Your task to perform on an android device: turn on improve location accuracy Image 0: 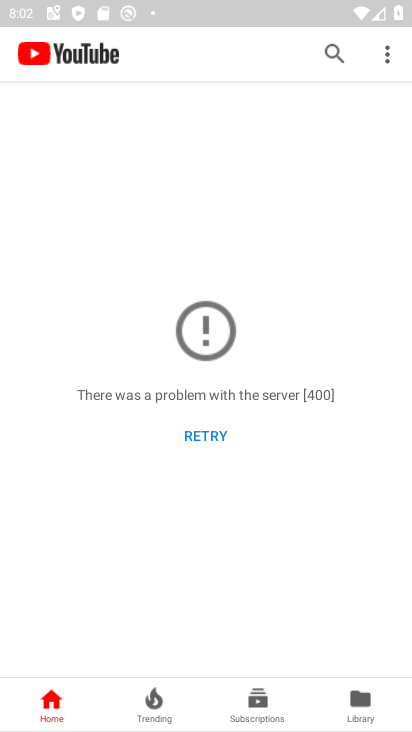
Step 0: press home button
Your task to perform on an android device: turn on improve location accuracy Image 1: 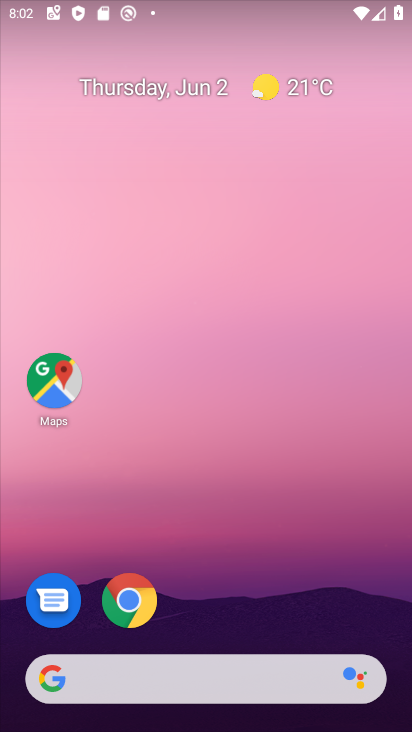
Step 1: drag from (359, 604) to (376, 218)
Your task to perform on an android device: turn on improve location accuracy Image 2: 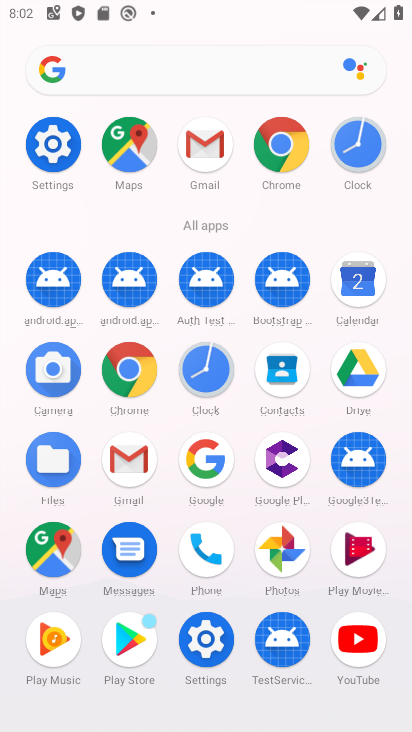
Step 2: click (209, 640)
Your task to perform on an android device: turn on improve location accuracy Image 3: 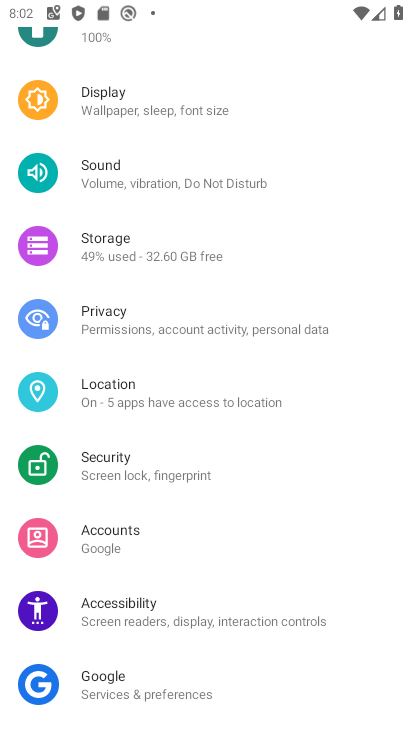
Step 3: drag from (305, 267) to (311, 405)
Your task to perform on an android device: turn on improve location accuracy Image 4: 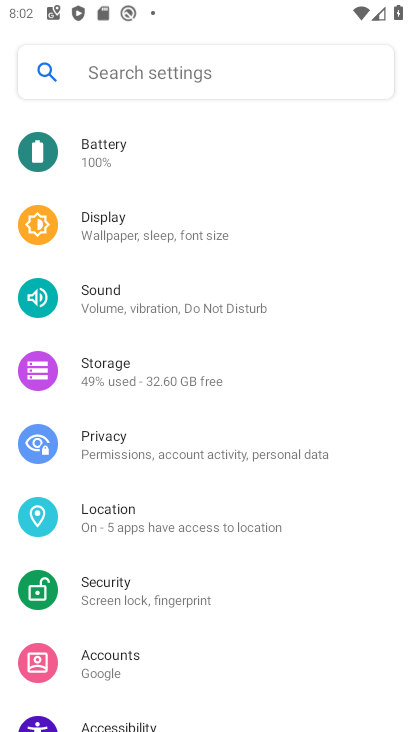
Step 4: drag from (316, 289) to (319, 365)
Your task to perform on an android device: turn on improve location accuracy Image 5: 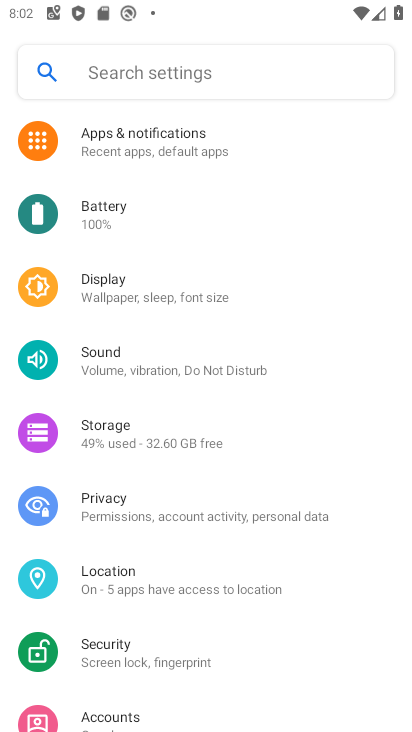
Step 5: drag from (349, 557) to (353, 359)
Your task to perform on an android device: turn on improve location accuracy Image 6: 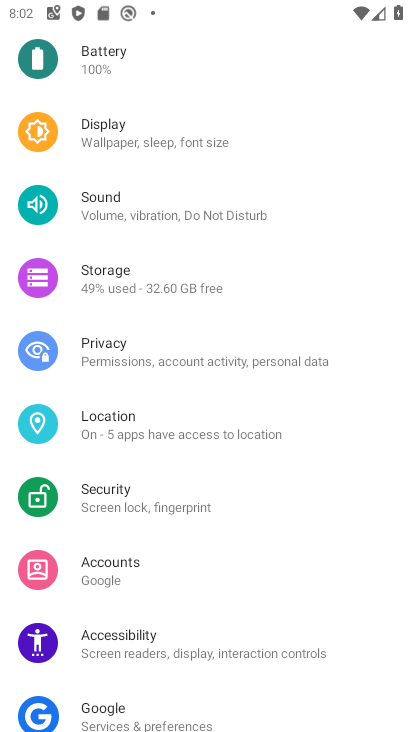
Step 6: click (274, 437)
Your task to perform on an android device: turn on improve location accuracy Image 7: 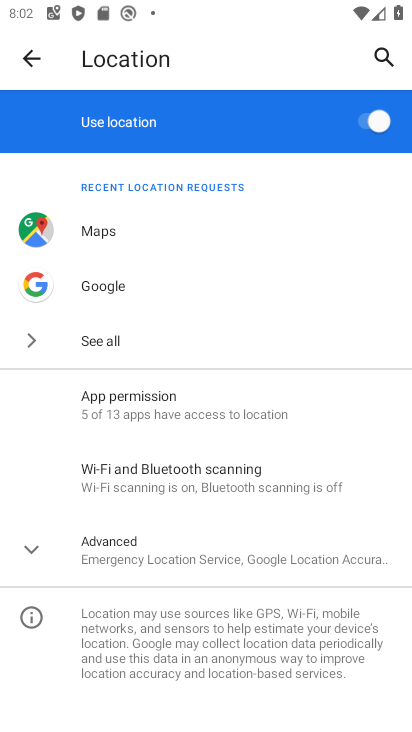
Step 7: click (271, 542)
Your task to perform on an android device: turn on improve location accuracy Image 8: 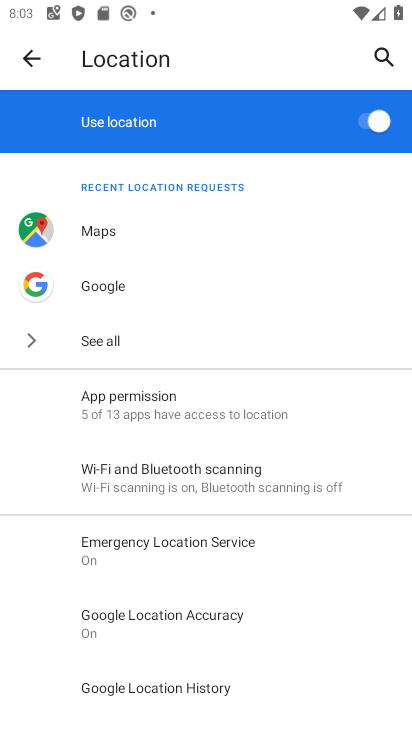
Step 8: drag from (321, 586) to (333, 403)
Your task to perform on an android device: turn on improve location accuracy Image 9: 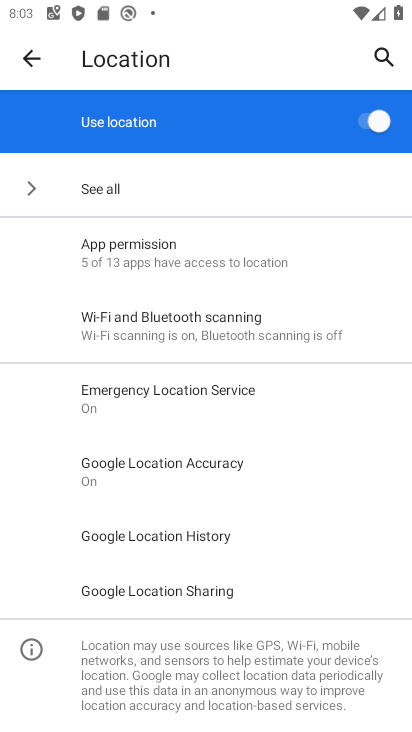
Step 9: click (202, 473)
Your task to perform on an android device: turn on improve location accuracy Image 10: 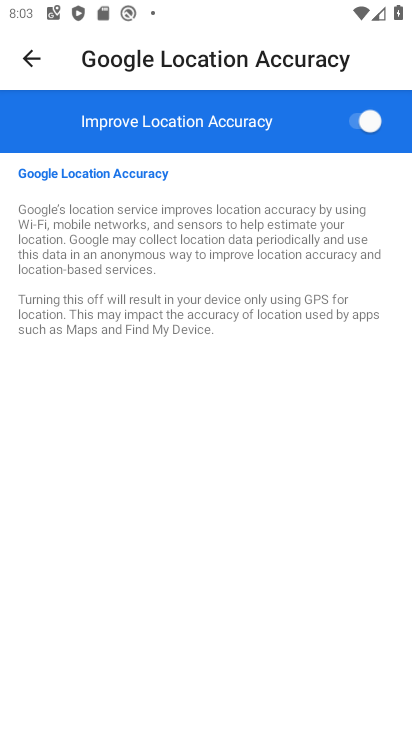
Step 10: task complete